Your task to perform on an android device: How much does a 2 bedroom apartment rent for in New York? Image 0: 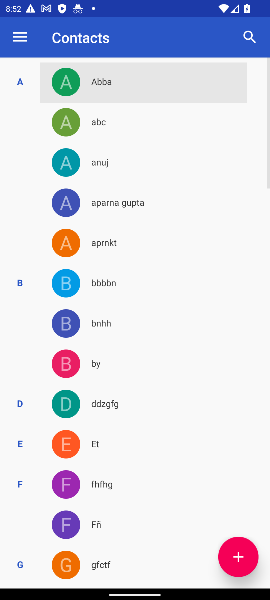
Step 0: press home button
Your task to perform on an android device: How much does a 2 bedroom apartment rent for in New York? Image 1: 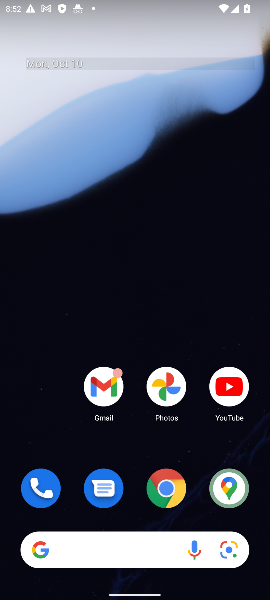
Step 1: drag from (206, 447) to (196, 71)
Your task to perform on an android device: How much does a 2 bedroom apartment rent for in New York? Image 2: 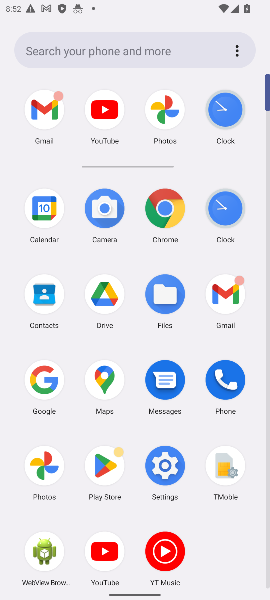
Step 2: click (163, 203)
Your task to perform on an android device: How much does a 2 bedroom apartment rent for in New York? Image 3: 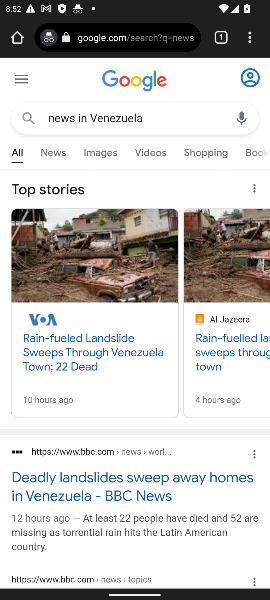
Step 3: click (129, 39)
Your task to perform on an android device: How much does a 2 bedroom apartment rent for in New York? Image 4: 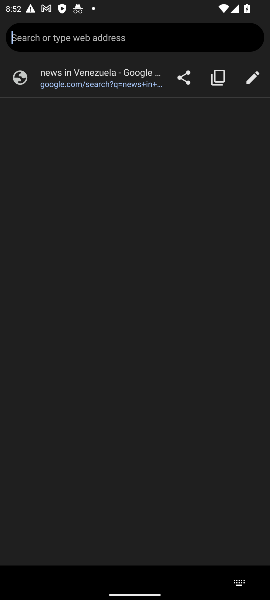
Step 4: type "How much does a 2 bedroom "
Your task to perform on an android device: How much does a 2 bedroom apartment rent for in New York? Image 5: 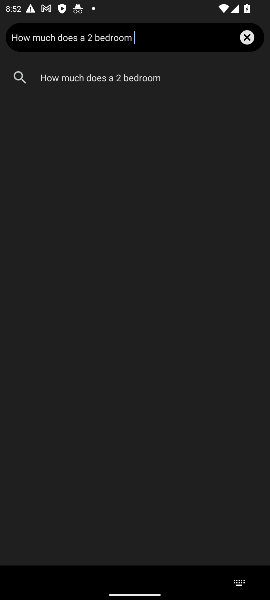
Step 5: type " apartment rent for in "
Your task to perform on an android device: How much does a 2 bedroom apartment rent for in New York? Image 6: 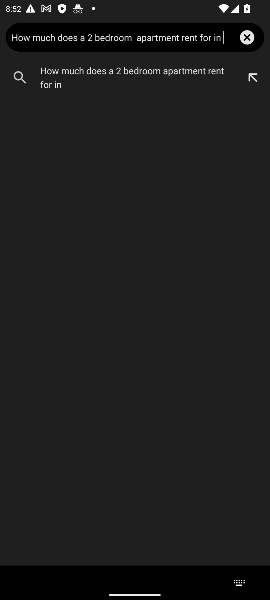
Step 6: type "New York?"
Your task to perform on an android device: How much does a 2 bedroom apartment rent for in New York? Image 7: 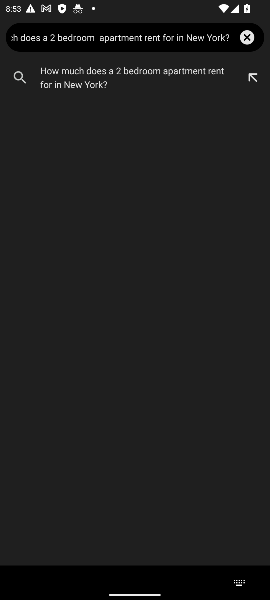
Step 7: press enter
Your task to perform on an android device: How much does a 2 bedroom apartment rent for in New York? Image 8: 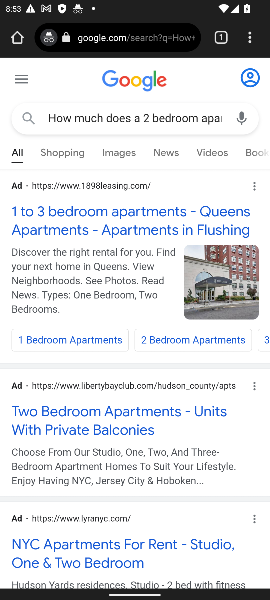
Step 8: drag from (165, 515) to (173, 50)
Your task to perform on an android device: How much does a 2 bedroom apartment rent for in New York? Image 9: 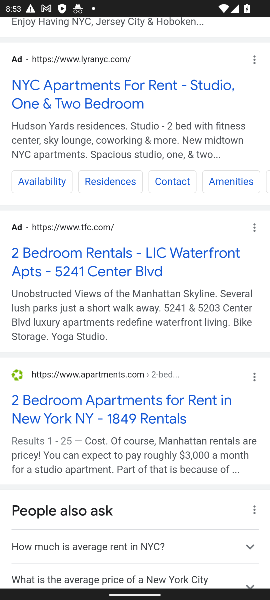
Step 9: drag from (174, 506) to (168, 230)
Your task to perform on an android device: How much does a 2 bedroom apartment rent for in New York? Image 10: 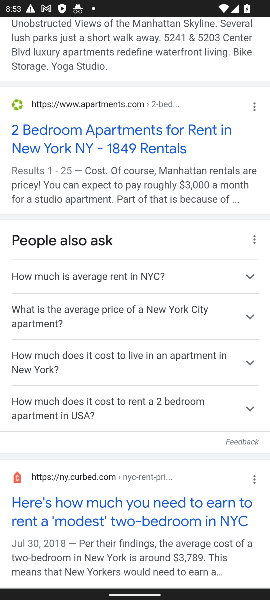
Step 10: click (134, 143)
Your task to perform on an android device: How much does a 2 bedroom apartment rent for in New York? Image 11: 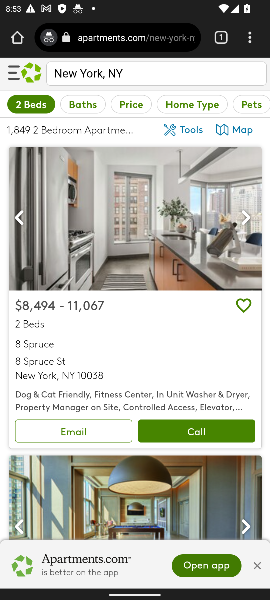
Step 11: task complete